Your task to perform on an android device: turn off picture-in-picture Image 0: 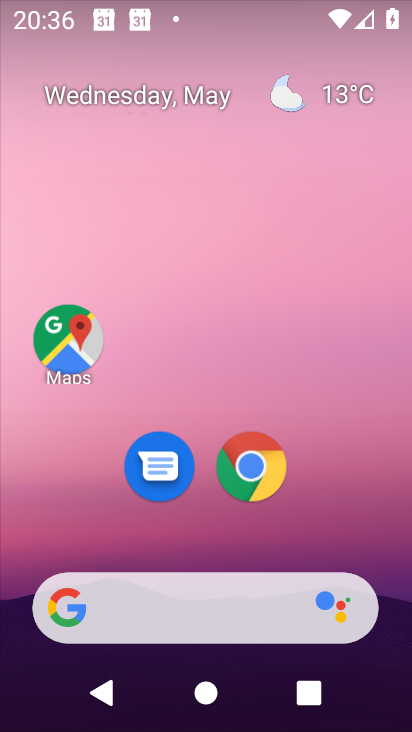
Step 0: click (257, 456)
Your task to perform on an android device: turn off picture-in-picture Image 1: 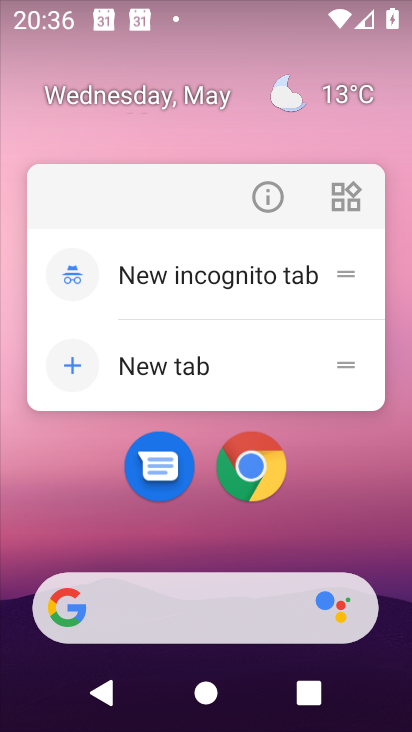
Step 1: click (271, 195)
Your task to perform on an android device: turn off picture-in-picture Image 2: 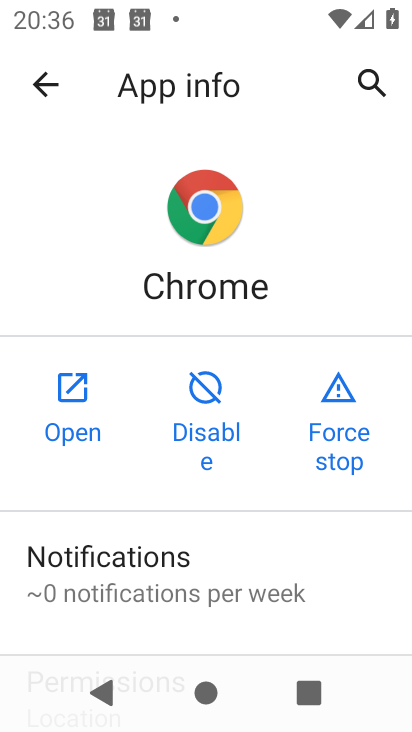
Step 2: drag from (218, 607) to (240, 167)
Your task to perform on an android device: turn off picture-in-picture Image 3: 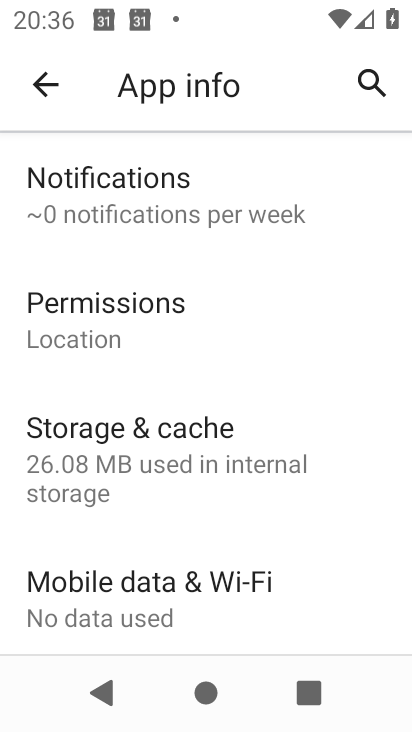
Step 3: drag from (199, 605) to (217, 173)
Your task to perform on an android device: turn off picture-in-picture Image 4: 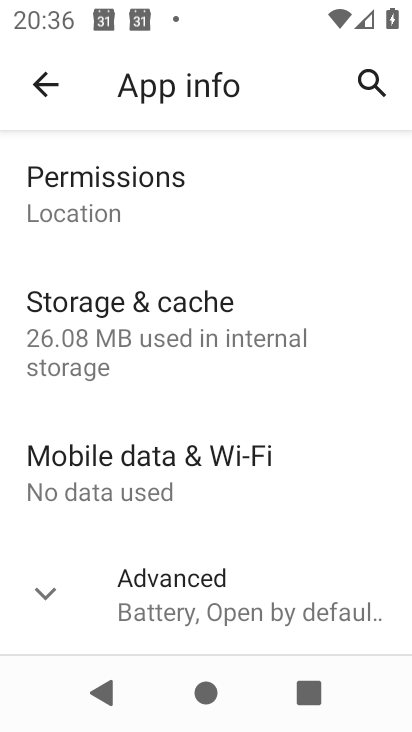
Step 4: click (44, 587)
Your task to perform on an android device: turn off picture-in-picture Image 5: 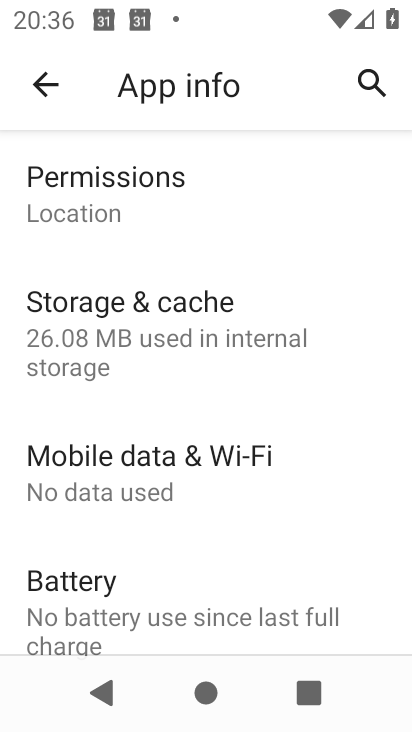
Step 5: drag from (181, 579) to (187, 113)
Your task to perform on an android device: turn off picture-in-picture Image 6: 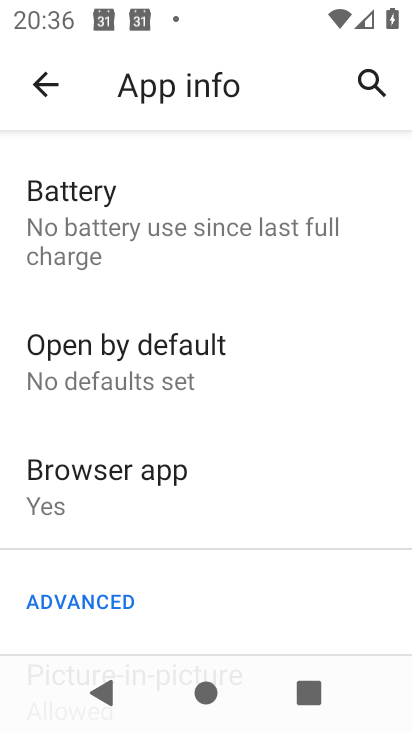
Step 6: drag from (186, 582) to (202, 222)
Your task to perform on an android device: turn off picture-in-picture Image 7: 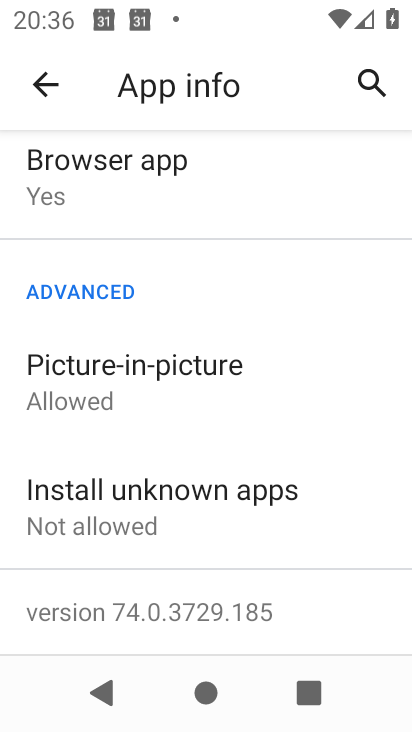
Step 7: click (138, 394)
Your task to perform on an android device: turn off picture-in-picture Image 8: 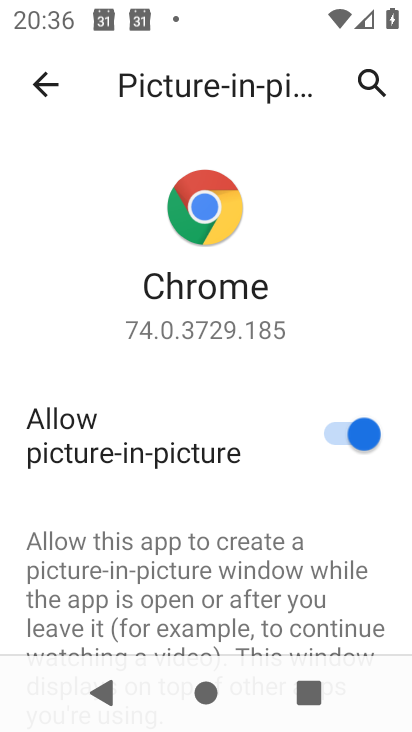
Step 8: click (338, 430)
Your task to perform on an android device: turn off picture-in-picture Image 9: 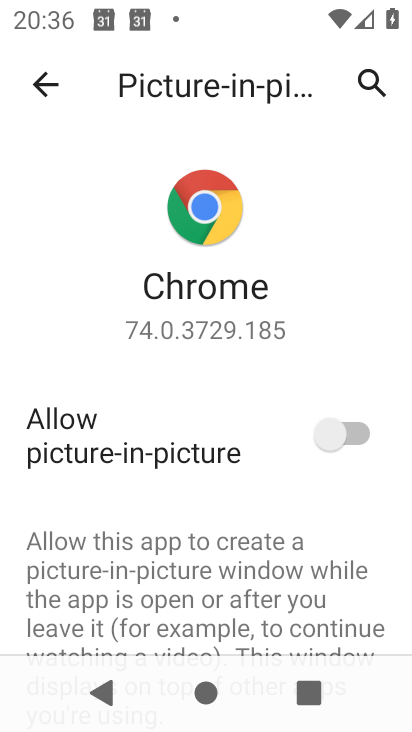
Step 9: task complete